Your task to perform on an android device: turn pop-ups off in chrome Image 0: 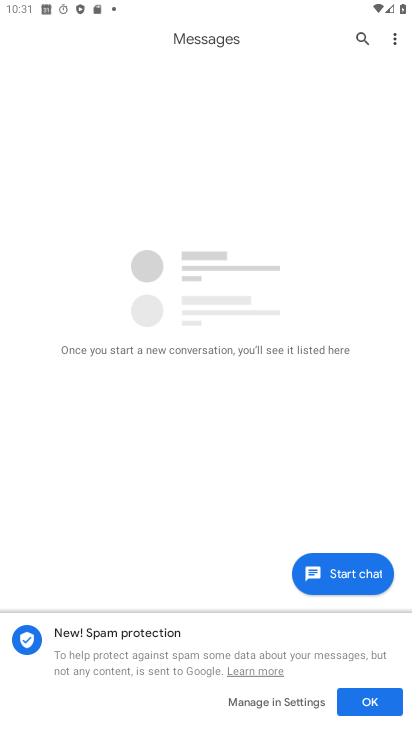
Step 0: press home button
Your task to perform on an android device: turn pop-ups off in chrome Image 1: 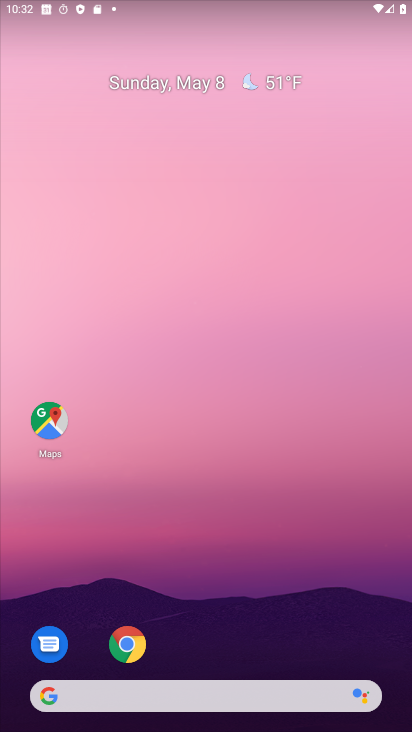
Step 1: drag from (236, 609) to (269, 229)
Your task to perform on an android device: turn pop-ups off in chrome Image 2: 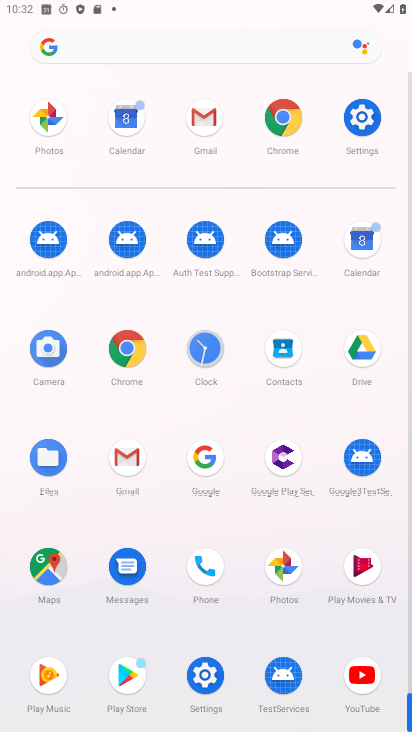
Step 2: click (127, 348)
Your task to perform on an android device: turn pop-ups off in chrome Image 3: 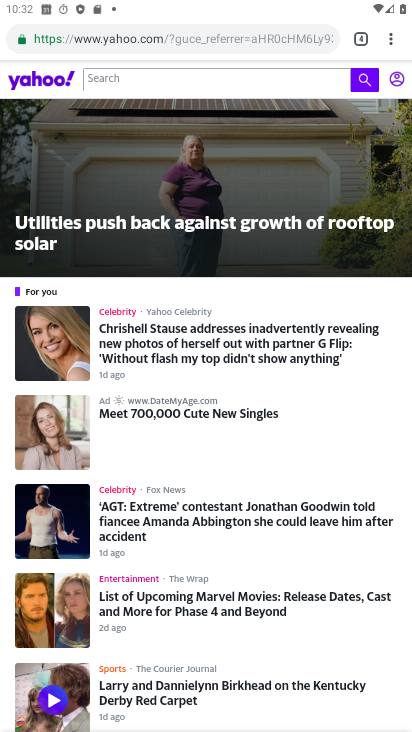
Step 3: drag from (247, 368) to (337, 575)
Your task to perform on an android device: turn pop-ups off in chrome Image 4: 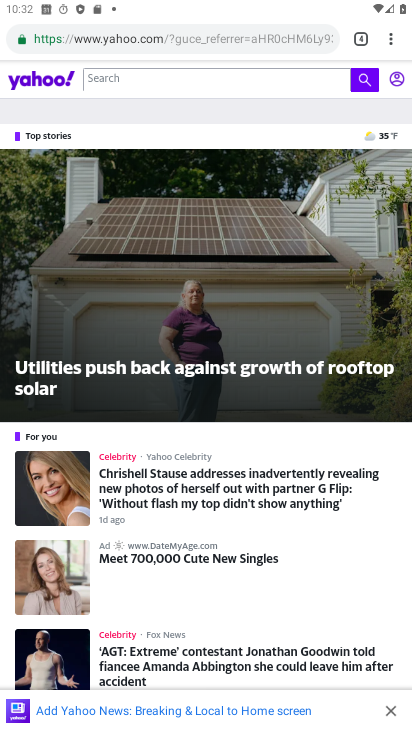
Step 4: drag from (393, 43) to (286, 480)
Your task to perform on an android device: turn pop-ups off in chrome Image 5: 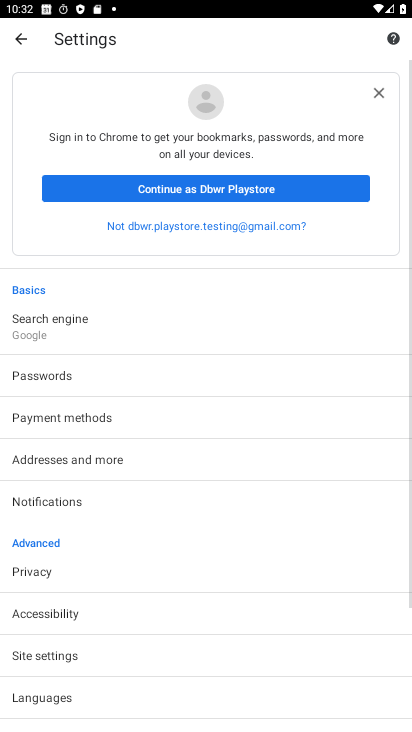
Step 5: drag from (206, 621) to (245, 168)
Your task to perform on an android device: turn pop-ups off in chrome Image 6: 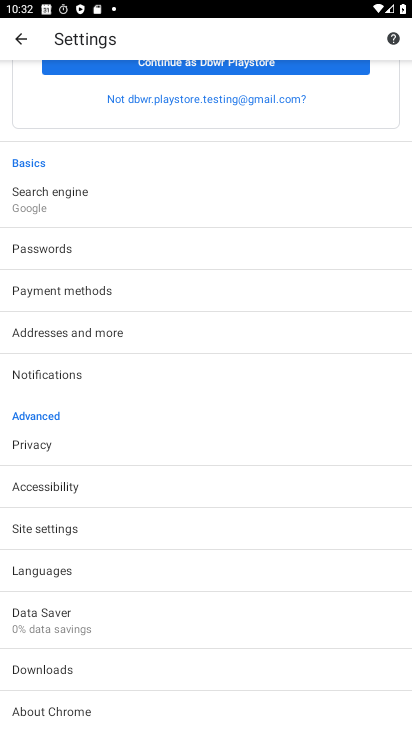
Step 6: click (90, 519)
Your task to perform on an android device: turn pop-ups off in chrome Image 7: 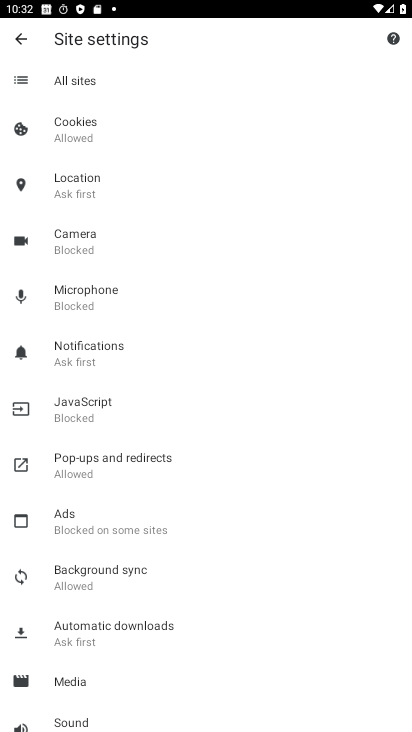
Step 7: click (139, 463)
Your task to perform on an android device: turn pop-ups off in chrome Image 8: 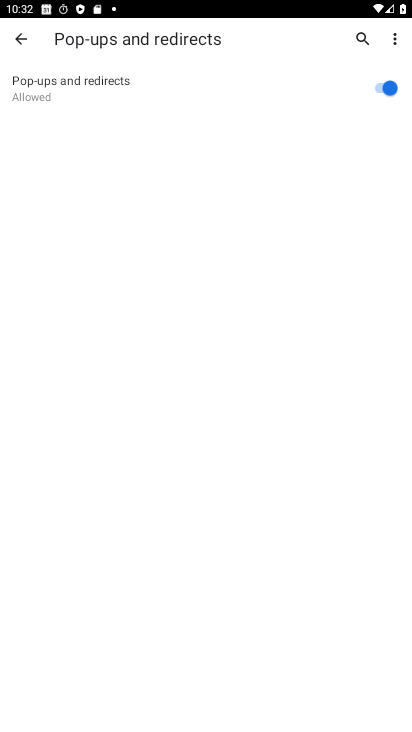
Step 8: click (378, 81)
Your task to perform on an android device: turn pop-ups off in chrome Image 9: 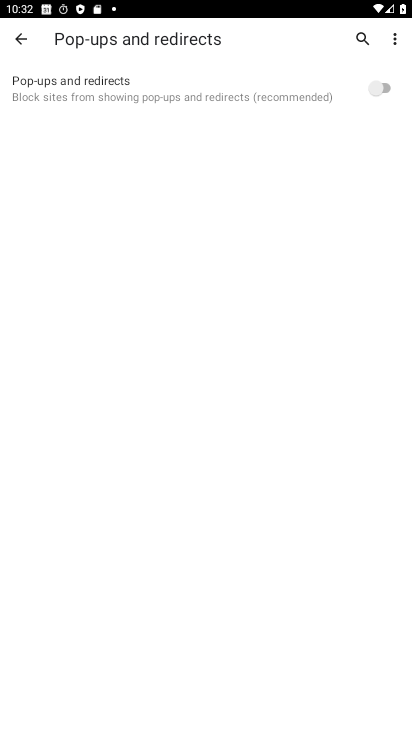
Step 9: task complete